Your task to perform on an android device: Open Amazon Image 0: 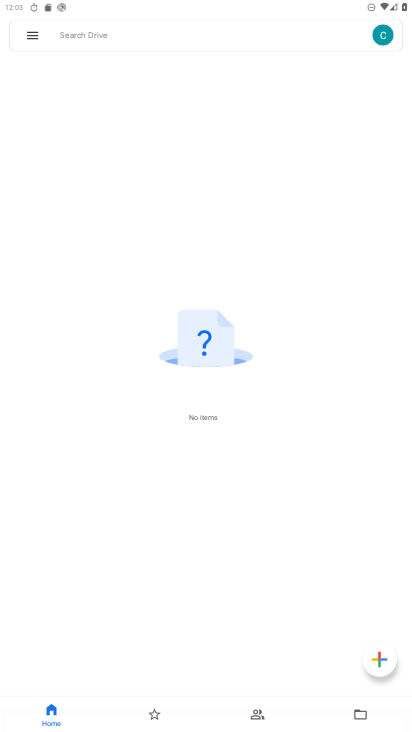
Step 0: press home button
Your task to perform on an android device: Open Amazon Image 1: 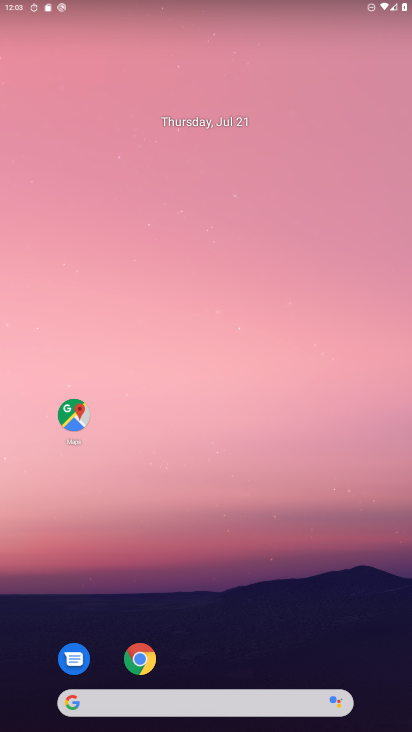
Step 1: drag from (215, 659) to (262, 170)
Your task to perform on an android device: Open Amazon Image 2: 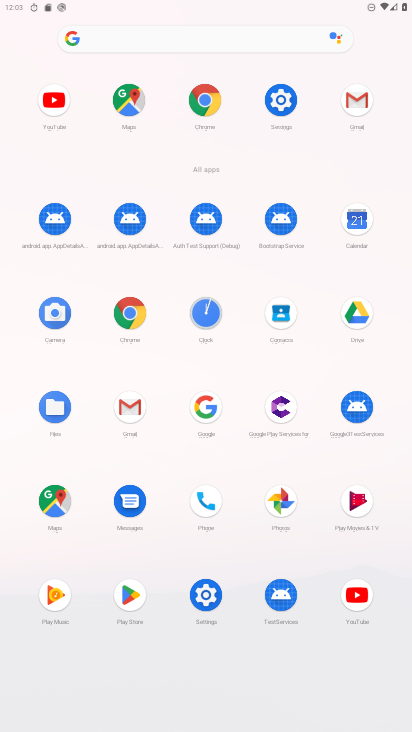
Step 2: click (204, 98)
Your task to perform on an android device: Open Amazon Image 3: 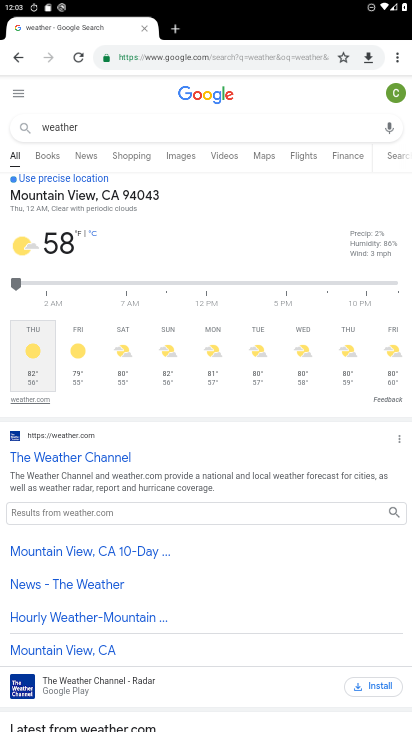
Step 3: click (240, 58)
Your task to perform on an android device: Open Amazon Image 4: 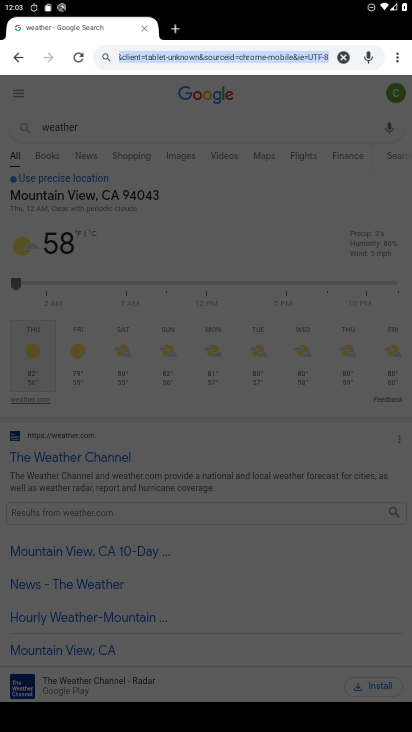
Step 4: type "amazon"
Your task to perform on an android device: Open Amazon Image 5: 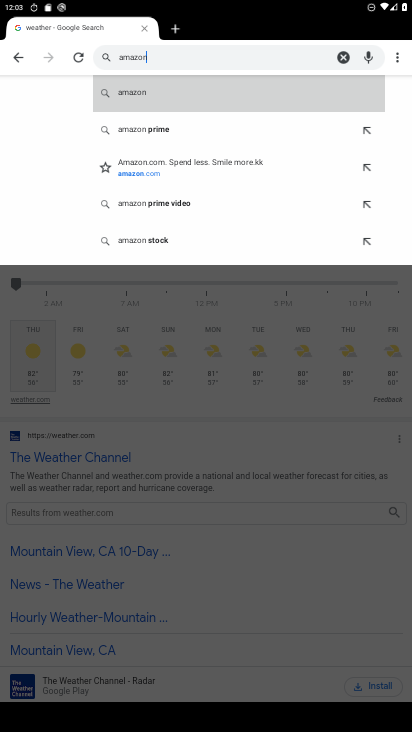
Step 5: click (144, 174)
Your task to perform on an android device: Open Amazon Image 6: 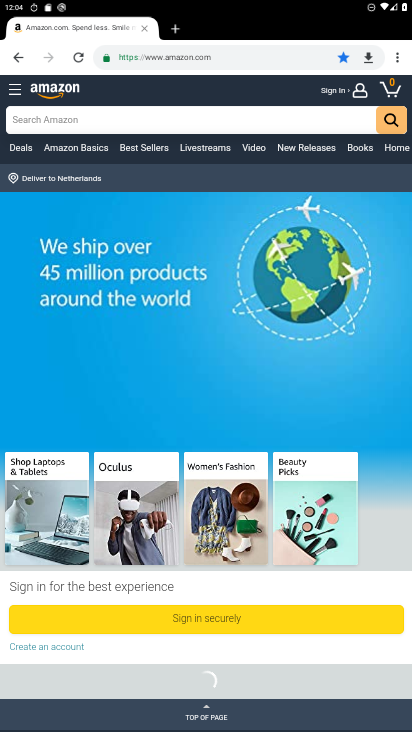
Step 6: task complete